Your task to perform on an android device: Open Google Maps Image 0: 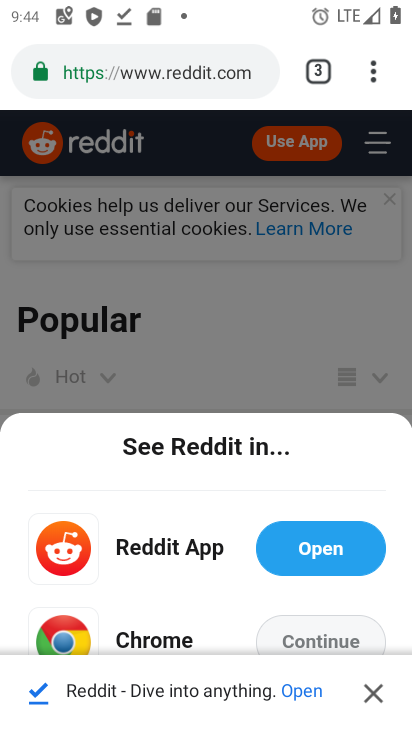
Step 0: press home button
Your task to perform on an android device: Open Google Maps Image 1: 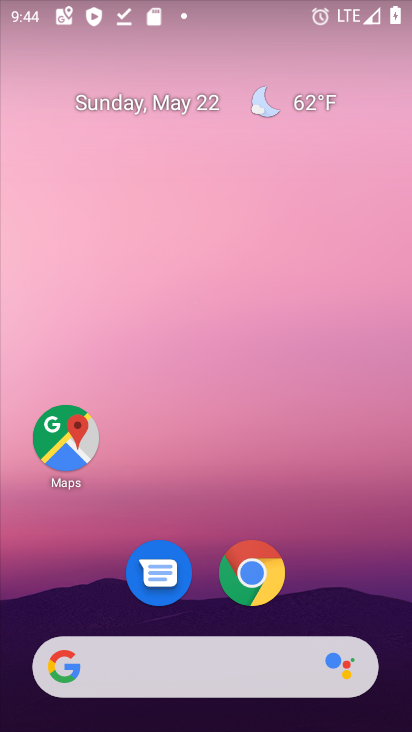
Step 1: drag from (251, 628) to (281, 44)
Your task to perform on an android device: Open Google Maps Image 2: 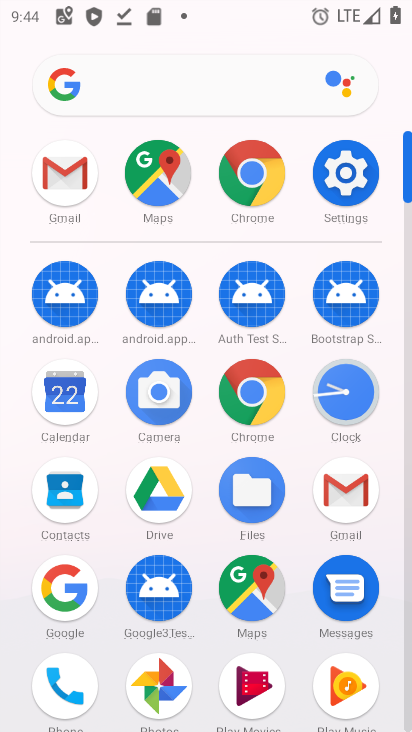
Step 2: click (268, 598)
Your task to perform on an android device: Open Google Maps Image 3: 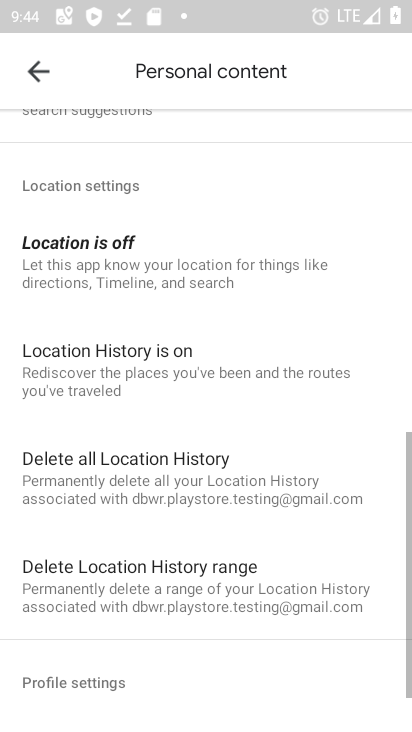
Step 3: task complete